Your task to perform on an android device: Do I have any events this weekend? Image 0: 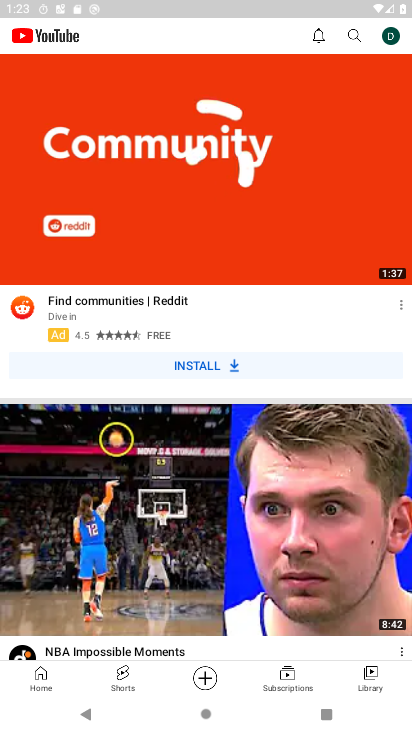
Step 0: press home button
Your task to perform on an android device: Do I have any events this weekend? Image 1: 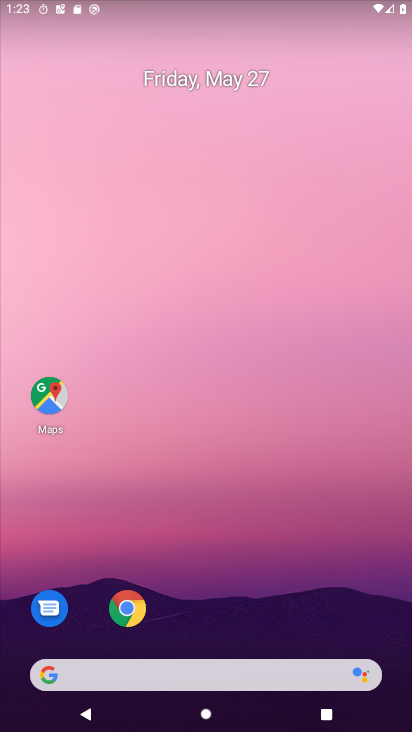
Step 1: drag from (389, 671) to (325, 208)
Your task to perform on an android device: Do I have any events this weekend? Image 2: 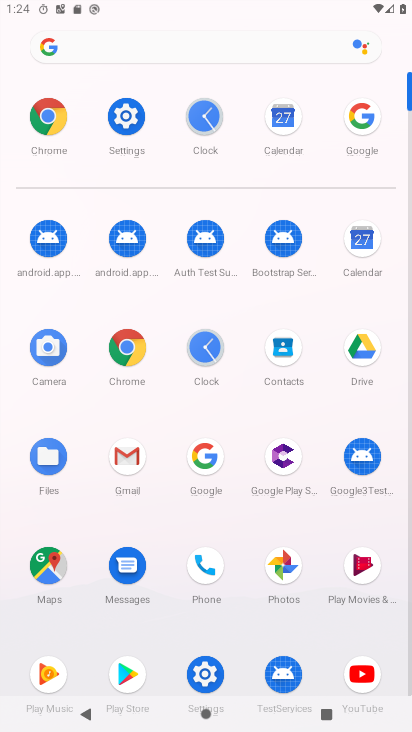
Step 2: click (369, 239)
Your task to perform on an android device: Do I have any events this weekend? Image 3: 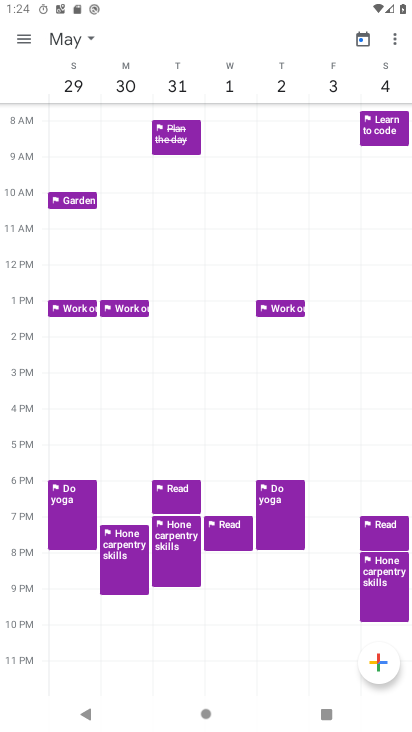
Step 3: task complete